Your task to perform on an android device: Look up the best rated bike seats on Target Image 0: 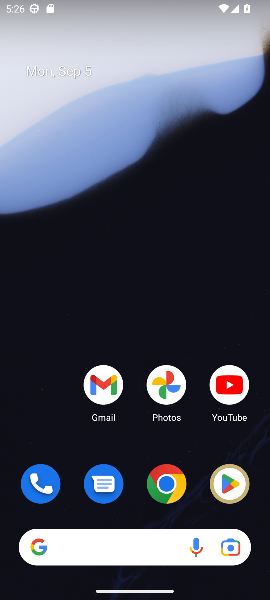
Step 0: click (165, 486)
Your task to perform on an android device: Look up the best rated bike seats on Target Image 1: 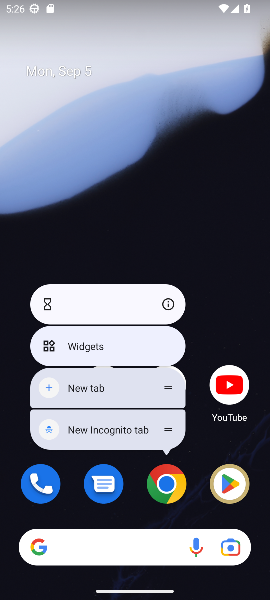
Step 1: click (165, 486)
Your task to perform on an android device: Look up the best rated bike seats on Target Image 2: 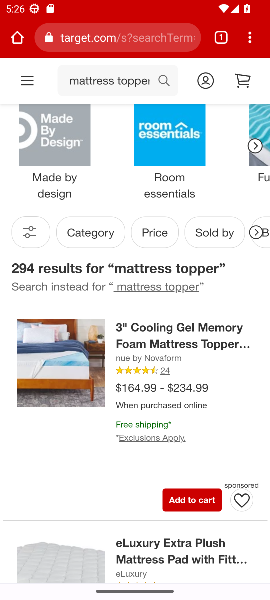
Step 2: click (162, 73)
Your task to perform on an android device: Look up the best rated bike seats on Target Image 3: 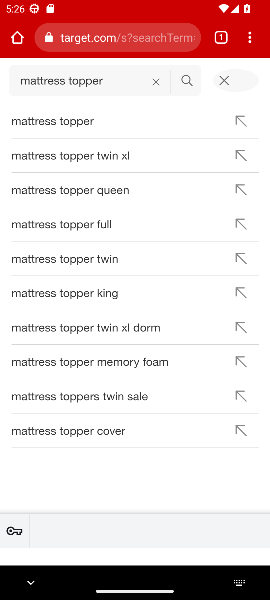
Step 3: click (154, 80)
Your task to perform on an android device: Look up the best rated bike seats on Target Image 4: 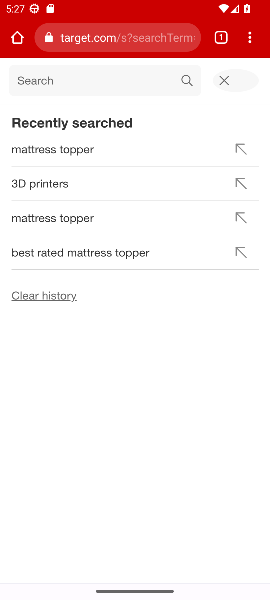
Step 4: click (42, 74)
Your task to perform on an android device: Look up the best rated bike seats on Target Image 5: 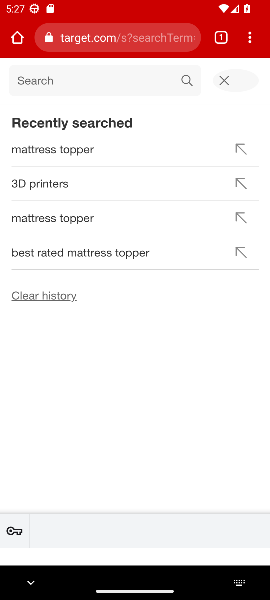
Step 5: type " best rated bike seats"
Your task to perform on an android device: Look up the best rated bike seats on Target Image 6: 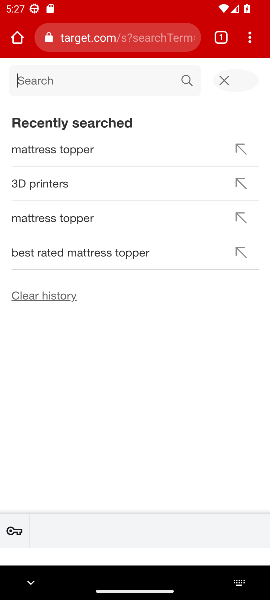
Step 6: press enter
Your task to perform on an android device: Look up the best rated bike seats on Target Image 7: 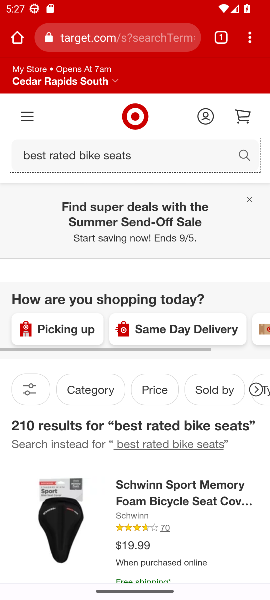
Step 7: task complete